Your task to perform on an android device: Go to Google Image 0: 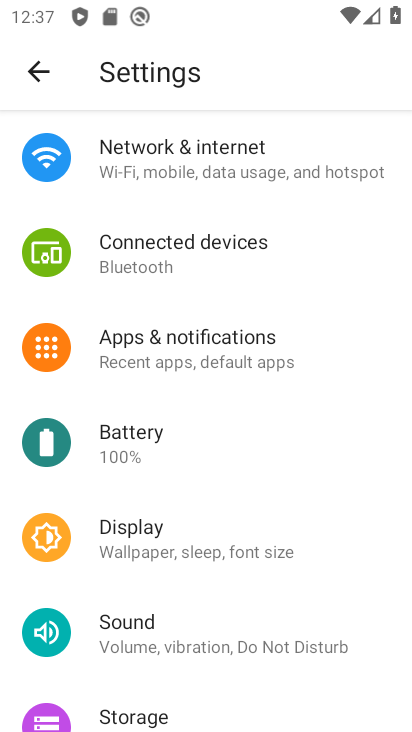
Step 0: press home button
Your task to perform on an android device: Go to Google Image 1: 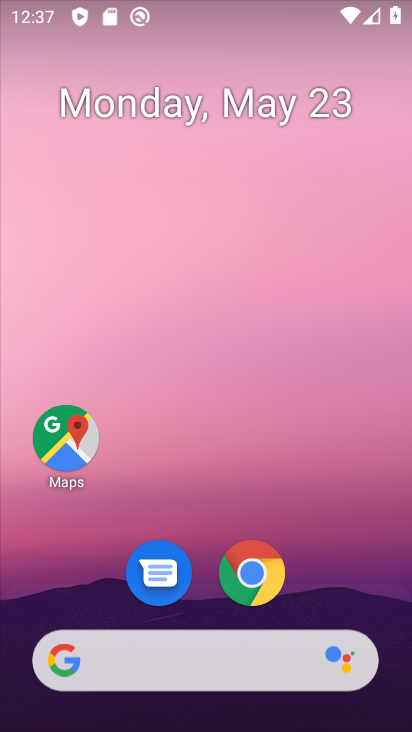
Step 1: drag from (272, 613) to (287, 21)
Your task to perform on an android device: Go to Google Image 2: 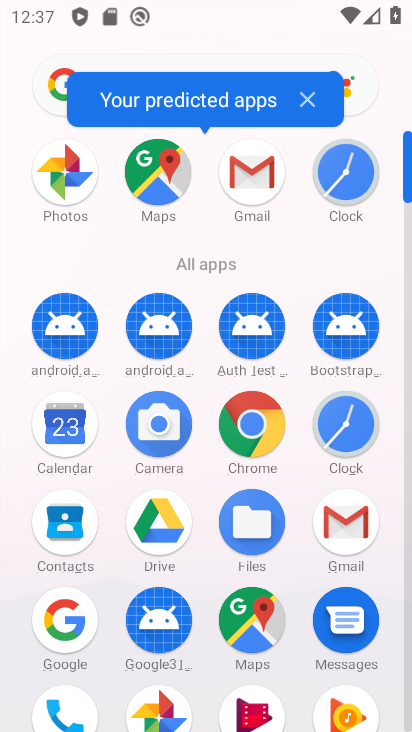
Step 2: click (232, 396)
Your task to perform on an android device: Go to Google Image 3: 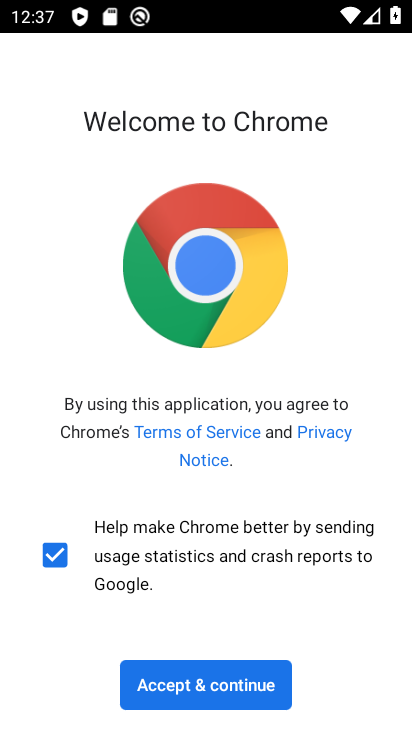
Step 3: click (239, 694)
Your task to perform on an android device: Go to Google Image 4: 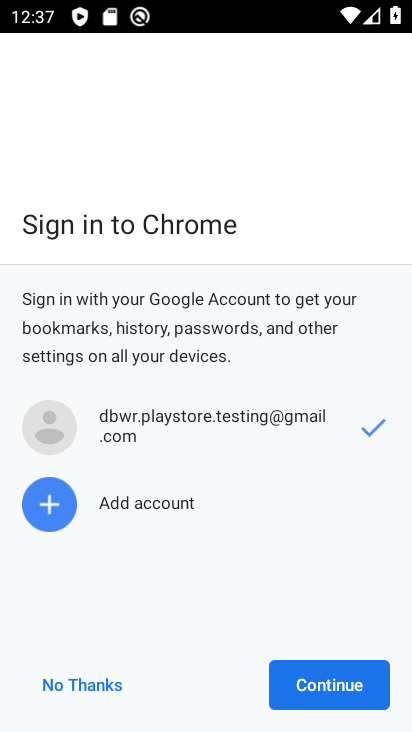
Step 4: click (354, 692)
Your task to perform on an android device: Go to Google Image 5: 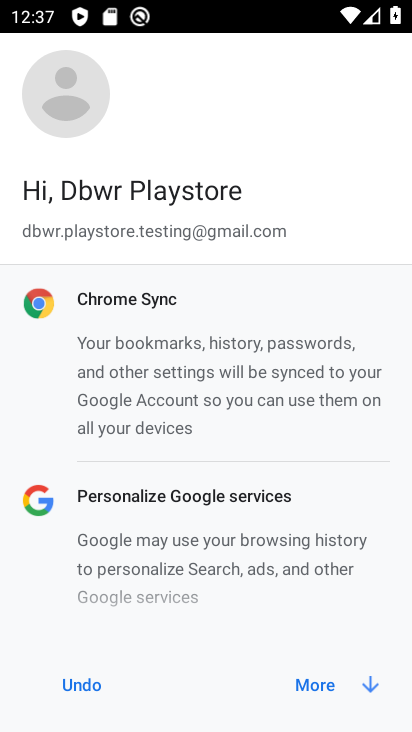
Step 5: click (79, 691)
Your task to perform on an android device: Go to Google Image 6: 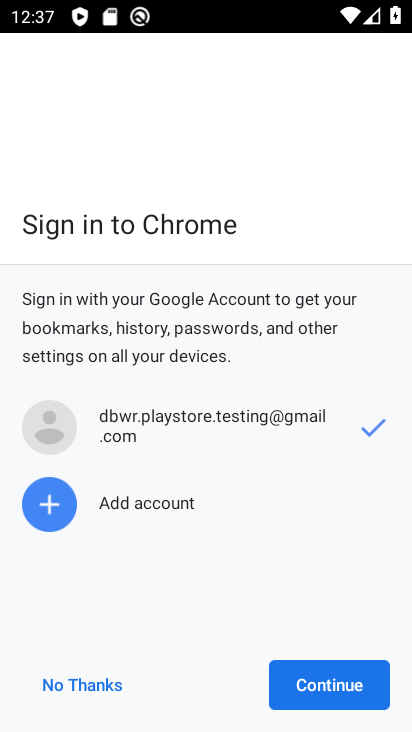
Step 6: click (84, 687)
Your task to perform on an android device: Go to Google Image 7: 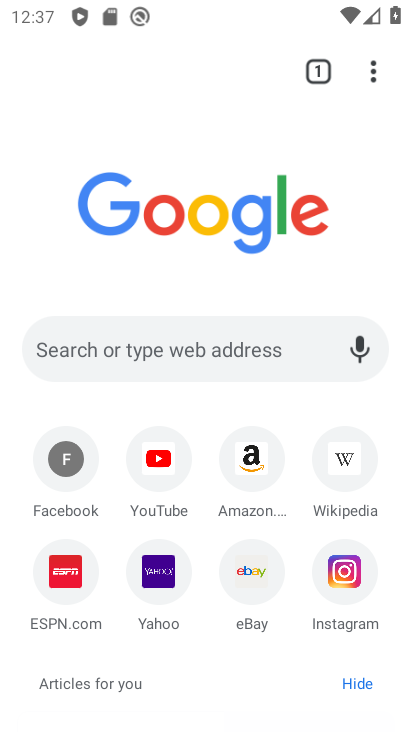
Step 7: task complete